Your task to perform on an android device: set the stopwatch Image 0: 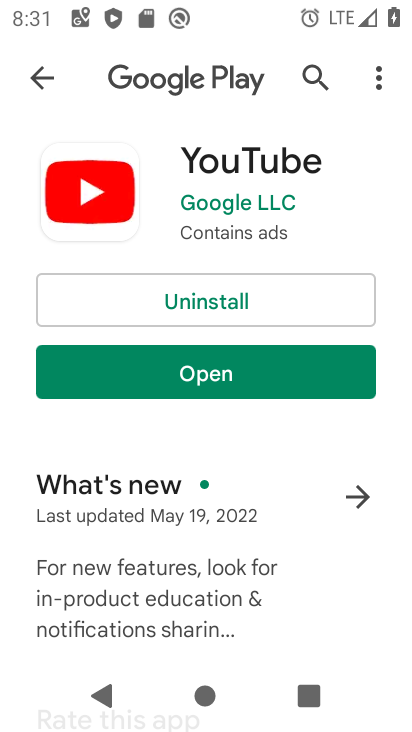
Step 0: press home button
Your task to perform on an android device: set the stopwatch Image 1: 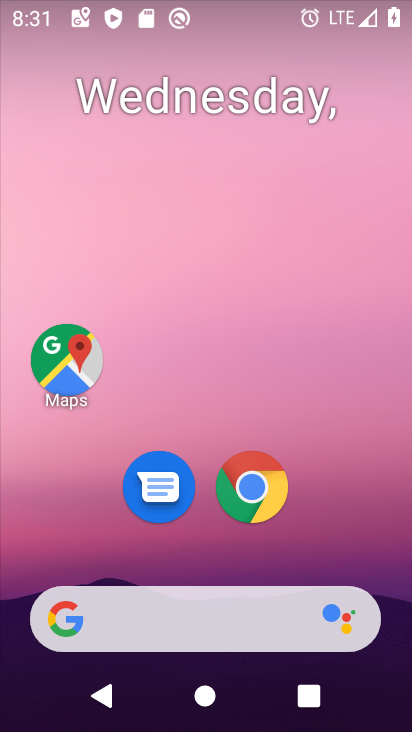
Step 1: drag from (318, 518) to (327, 1)
Your task to perform on an android device: set the stopwatch Image 2: 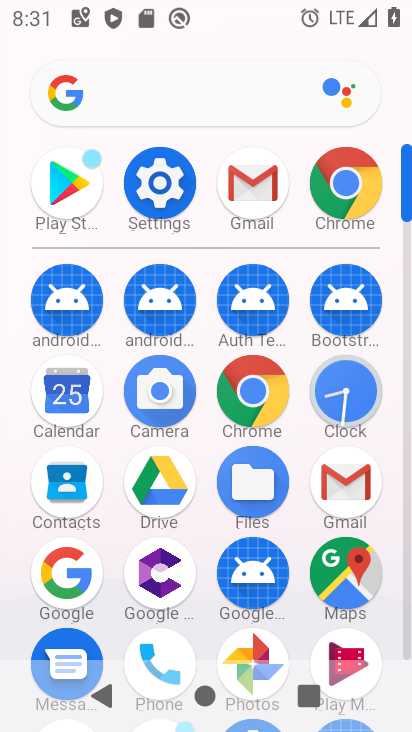
Step 2: click (335, 384)
Your task to perform on an android device: set the stopwatch Image 3: 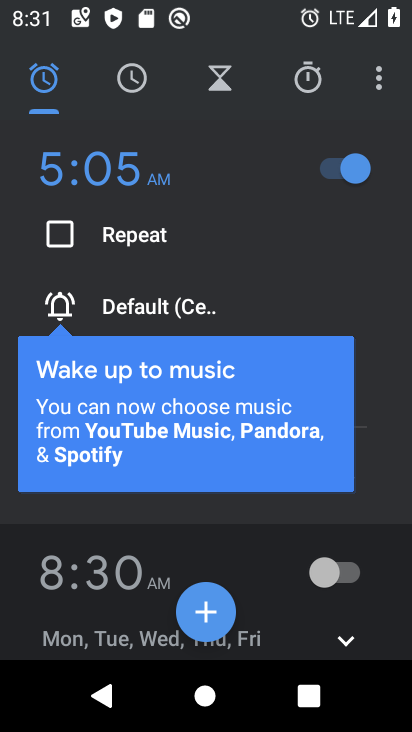
Step 3: click (309, 85)
Your task to perform on an android device: set the stopwatch Image 4: 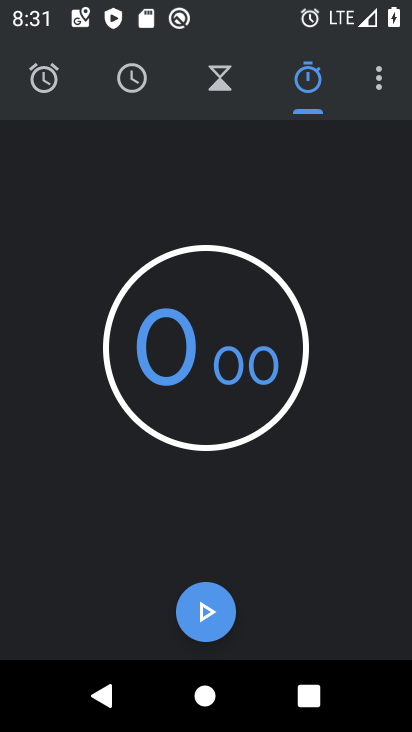
Step 4: click (200, 612)
Your task to perform on an android device: set the stopwatch Image 5: 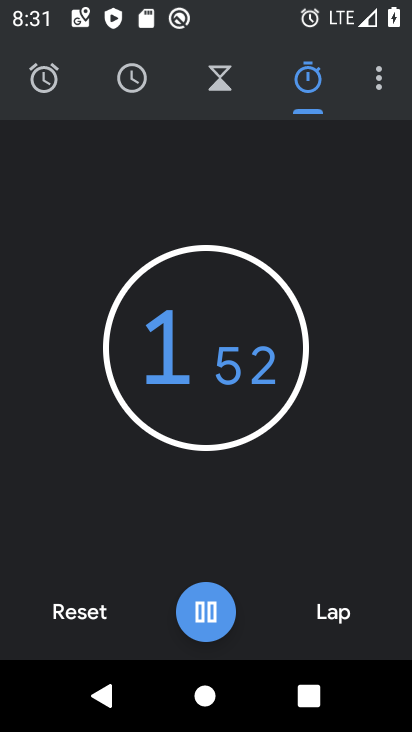
Step 5: click (200, 612)
Your task to perform on an android device: set the stopwatch Image 6: 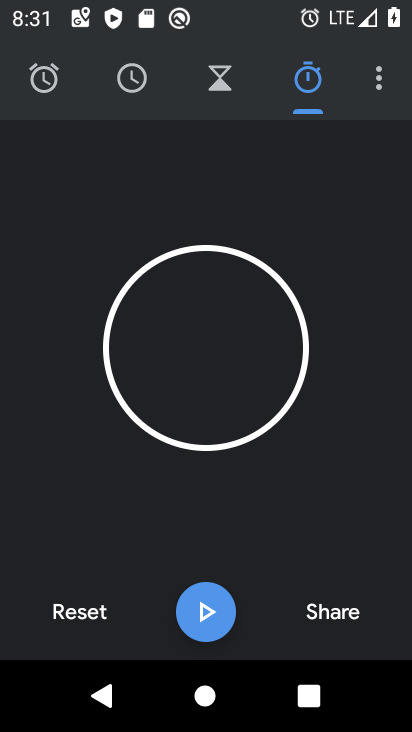
Step 6: task complete